Your task to perform on an android device: check out phone information Image 0: 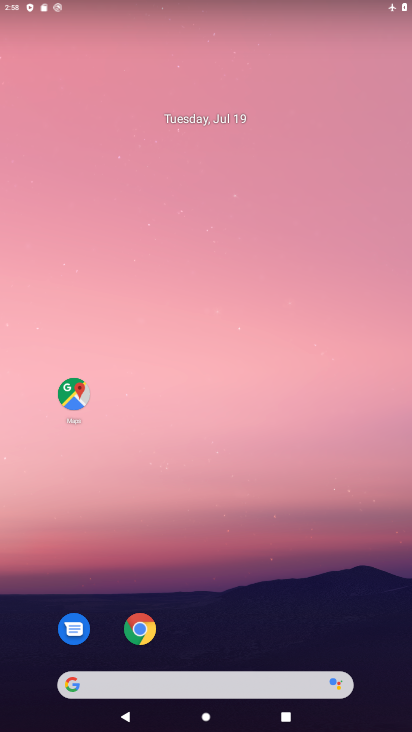
Step 0: drag from (277, 620) to (249, 71)
Your task to perform on an android device: check out phone information Image 1: 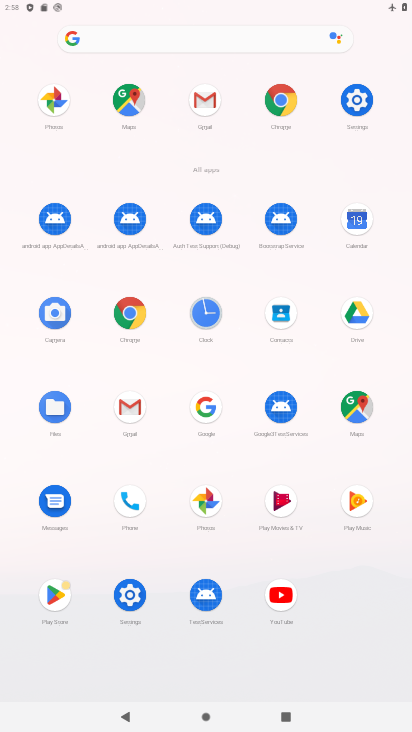
Step 1: click (365, 101)
Your task to perform on an android device: check out phone information Image 2: 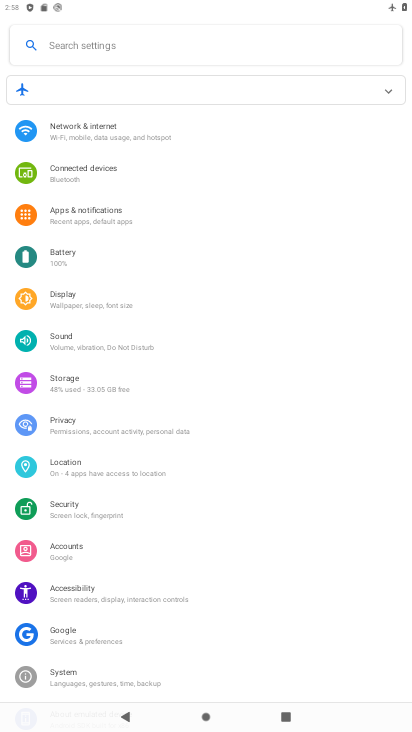
Step 2: drag from (174, 653) to (168, 240)
Your task to perform on an android device: check out phone information Image 3: 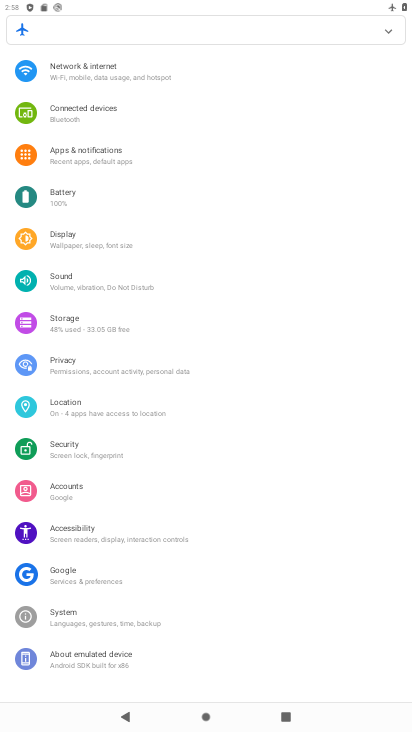
Step 3: click (119, 657)
Your task to perform on an android device: check out phone information Image 4: 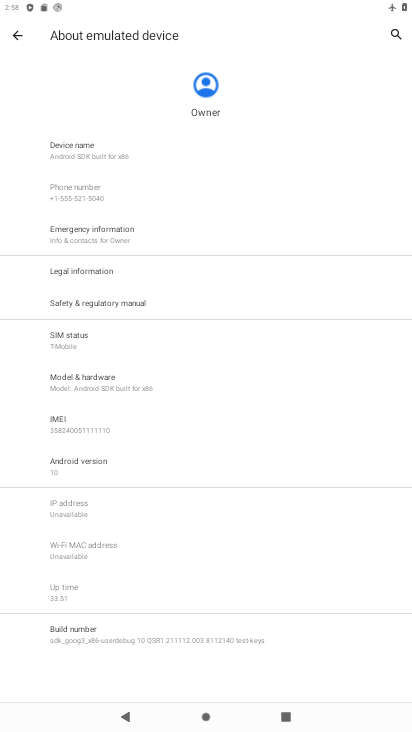
Step 4: click (153, 238)
Your task to perform on an android device: check out phone information Image 5: 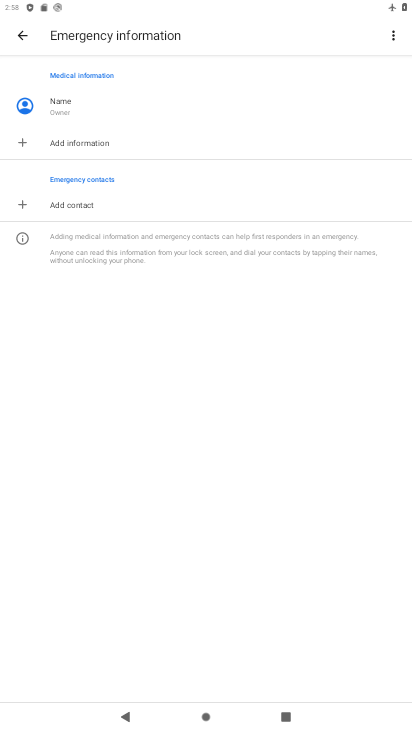
Step 5: task complete